Your task to perform on an android device: open a new tab in the chrome app Image 0: 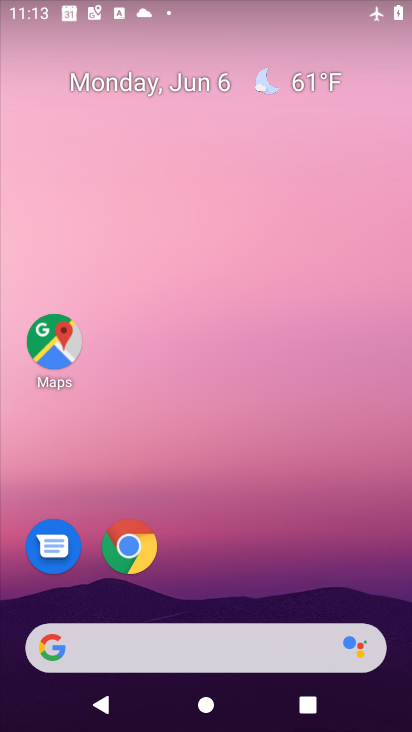
Step 0: click (133, 551)
Your task to perform on an android device: open a new tab in the chrome app Image 1: 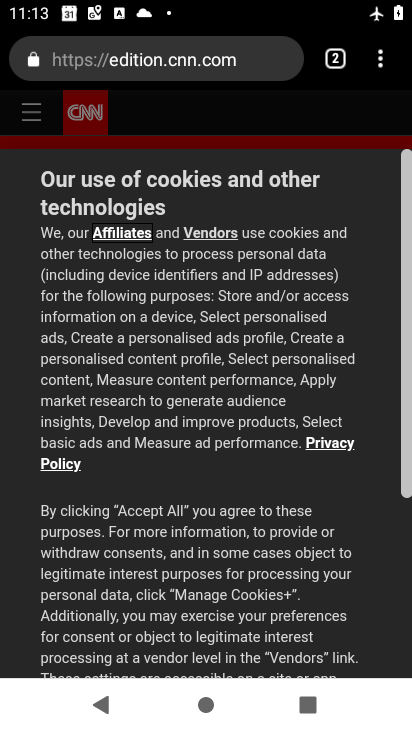
Step 1: click (377, 65)
Your task to perform on an android device: open a new tab in the chrome app Image 2: 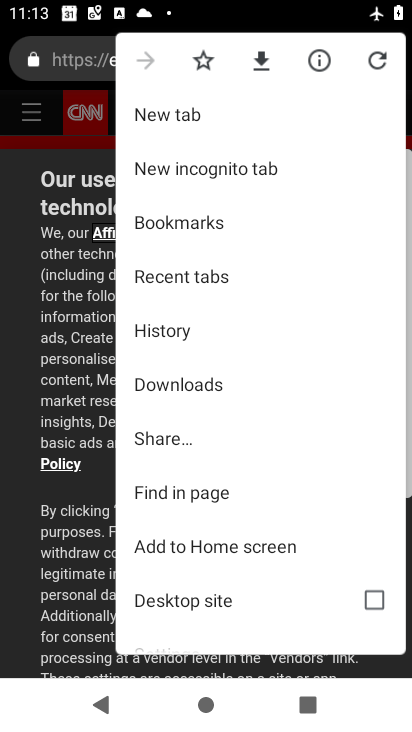
Step 2: click (168, 119)
Your task to perform on an android device: open a new tab in the chrome app Image 3: 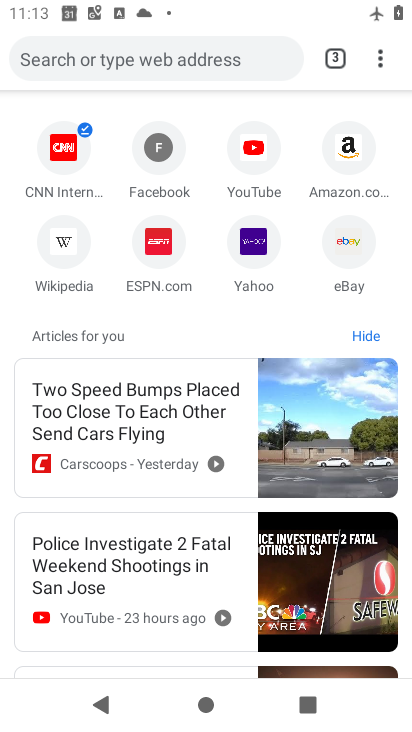
Step 3: task complete